Your task to perform on an android device: Go to battery settings Image 0: 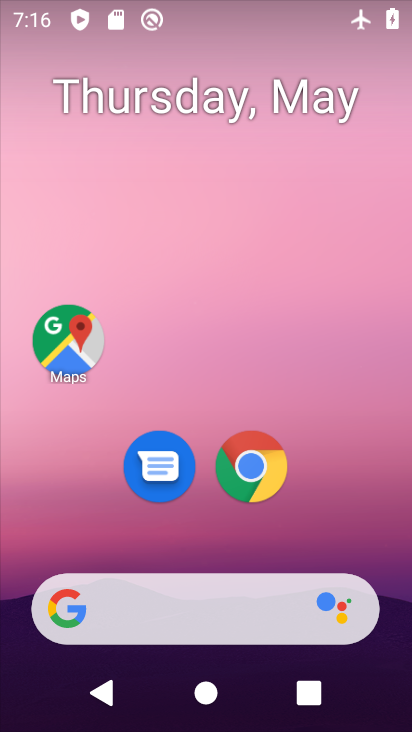
Step 0: drag from (325, 521) to (214, 86)
Your task to perform on an android device: Go to battery settings Image 1: 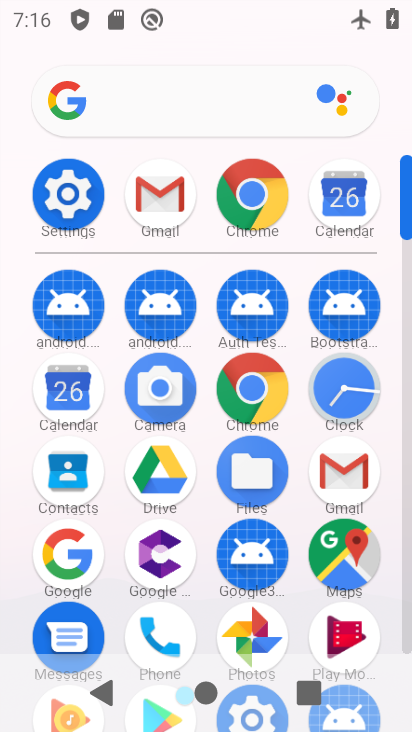
Step 1: click (52, 197)
Your task to perform on an android device: Go to battery settings Image 2: 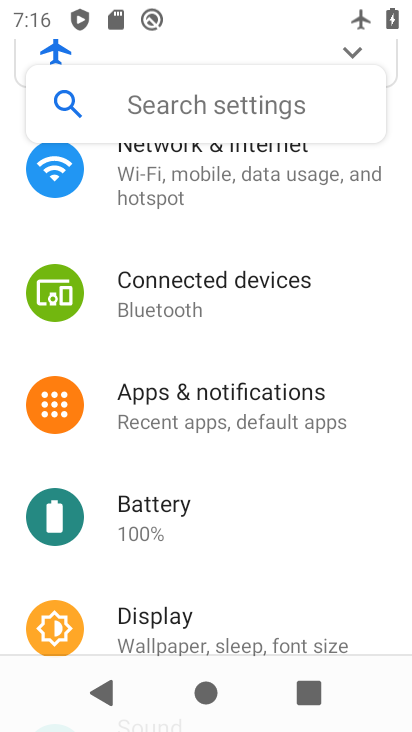
Step 2: click (153, 501)
Your task to perform on an android device: Go to battery settings Image 3: 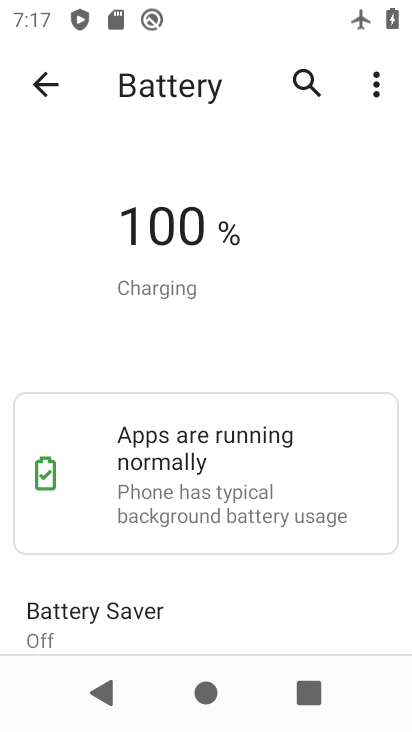
Step 3: task complete